Your task to perform on an android device: Go to battery settings Image 0: 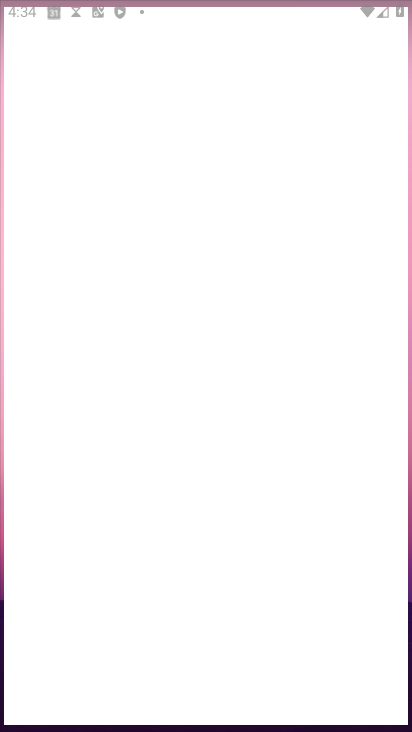
Step 0: click (122, 244)
Your task to perform on an android device: Go to battery settings Image 1: 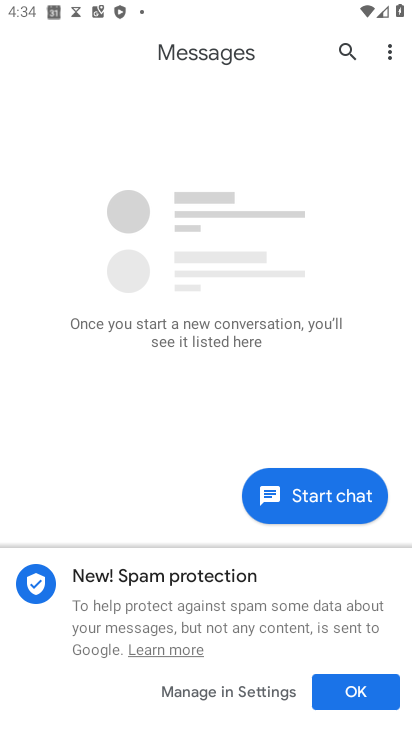
Step 1: click (352, 693)
Your task to perform on an android device: Go to battery settings Image 2: 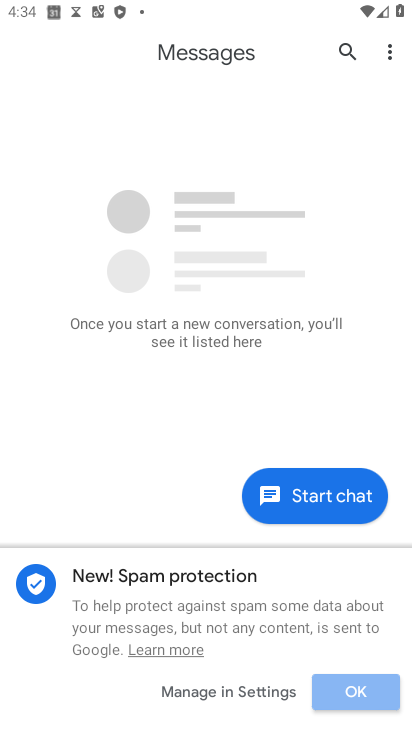
Step 2: click (353, 692)
Your task to perform on an android device: Go to battery settings Image 3: 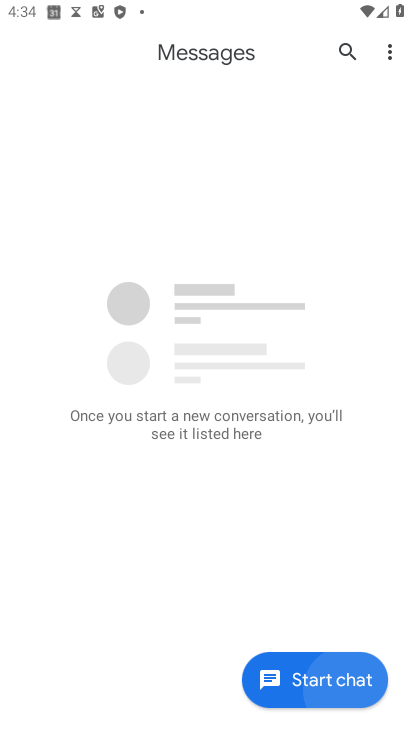
Step 3: click (353, 692)
Your task to perform on an android device: Go to battery settings Image 4: 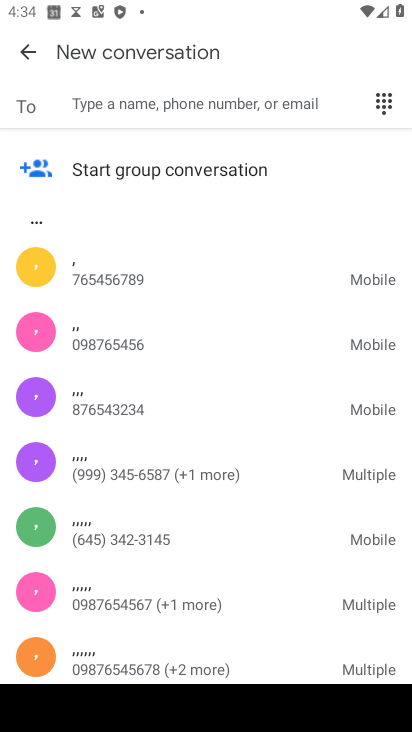
Step 4: click (10, 43)
Your task to perform on an android device: Go to battery settings Image 5: 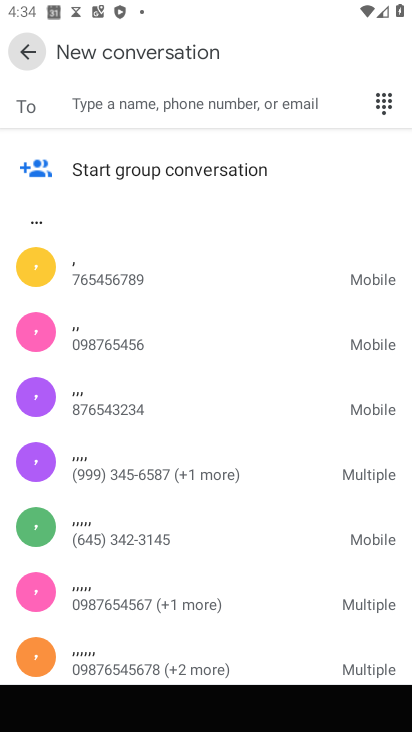
Step 5: click (27, 57)
Your task to perform on an android device: Go to battery settings Image 6: 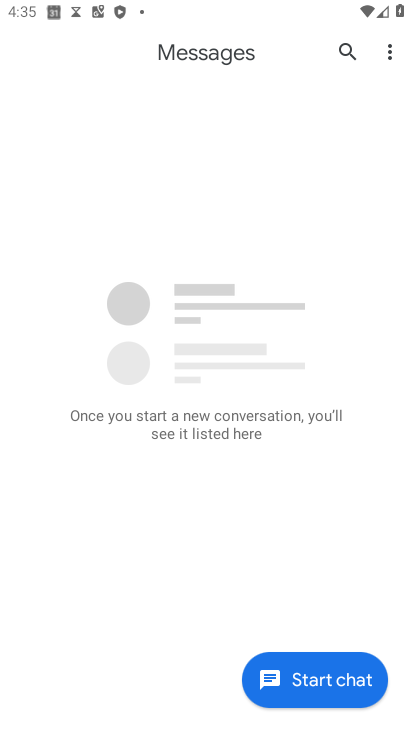
Step 6: press back button
Your task to perform on an android device: Go to battery settings Image 7: 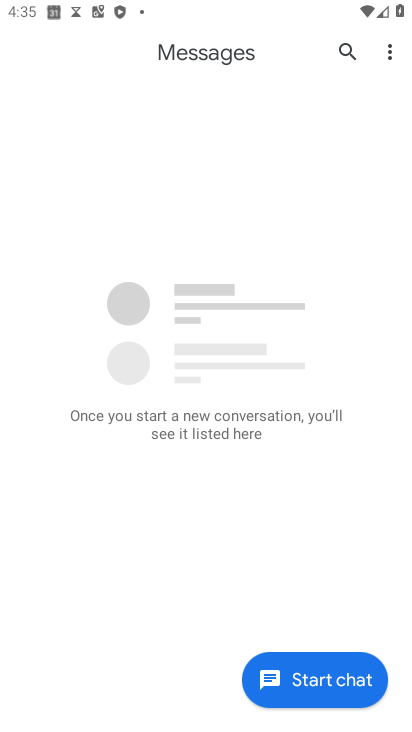
Step 7: press back button
Your task to perform on an android device: Go to battery settings Image 8: 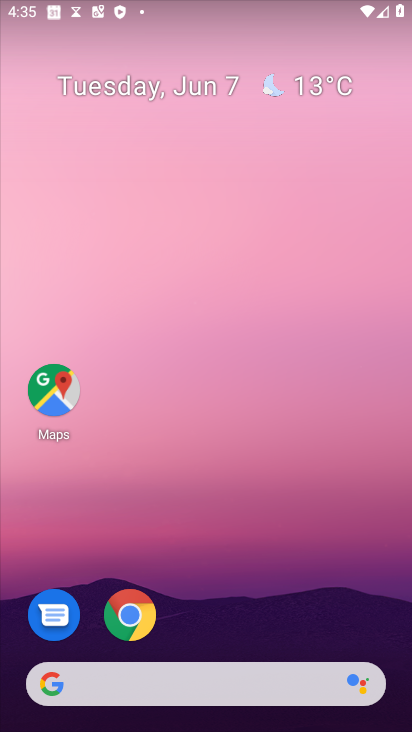
Step 8: press home button
Your task to perform on an android device: Go to battery settings Image 9: 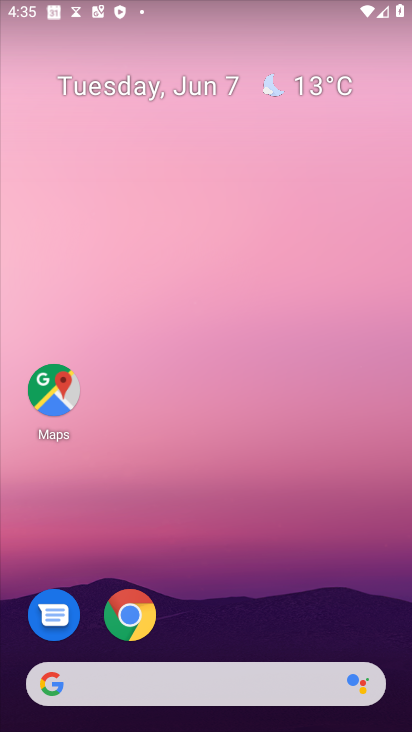
Step 9: drag from (240, 690) to (169, 256)
Your task to perform on an android device: Go to battery settings Image 10: 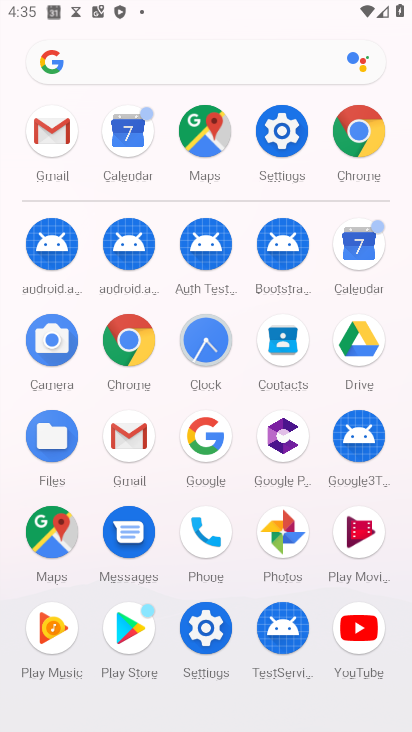
Step 10: drag from (297, 668) to (205, 308)
Your task to perform on an android device: Go to battery settings Image 11: 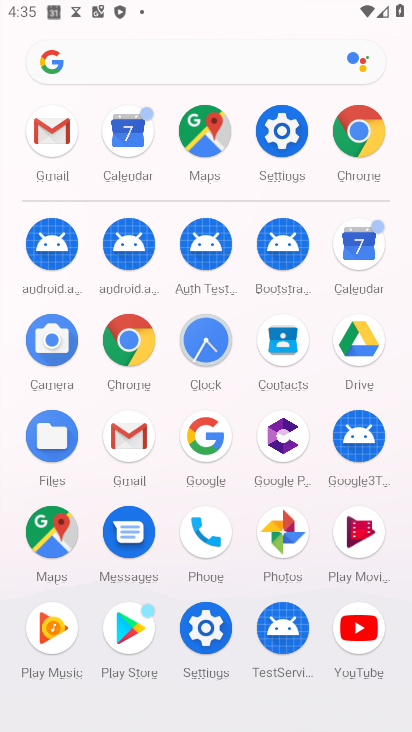
Step 11: click (205, 621)
Your task to perform on an android device: Go to battery settings Image 12: 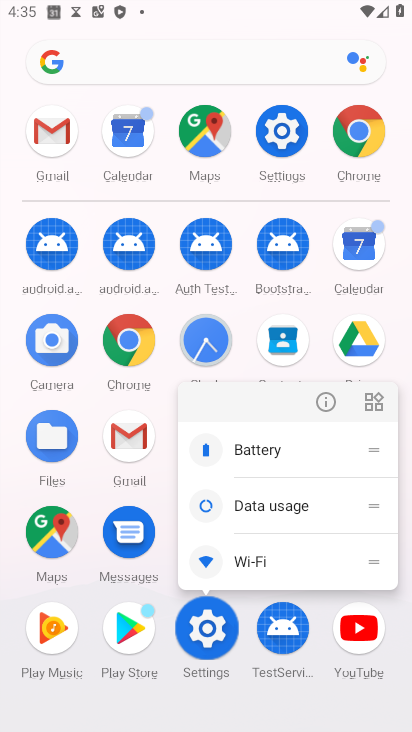
Step 12: click (205, 619)
Your task to perform on an android device: Go to battery settings Image 13: 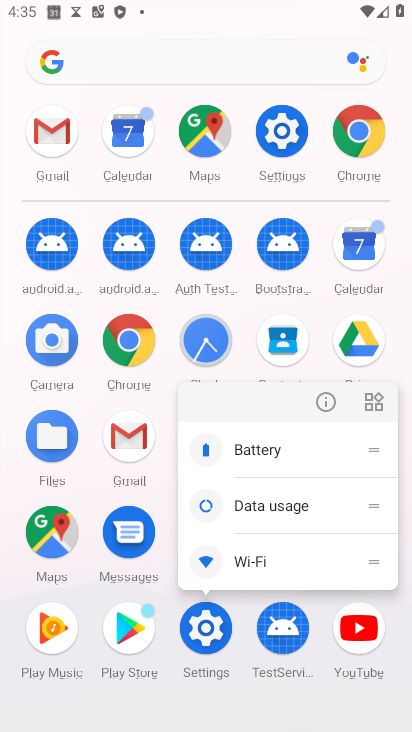
Step 13: click (166, 390)
Your task to perform on an android device: Go to battery settings Image 14: 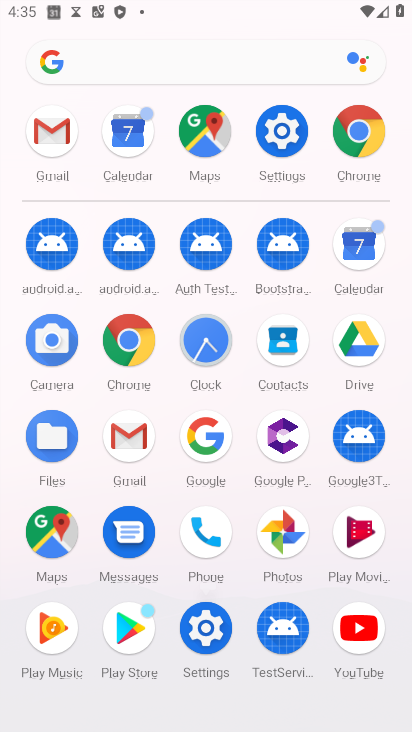
Step 14: click (164, 390)
Your task to perform on an android device: Go to battery settings Image 15: 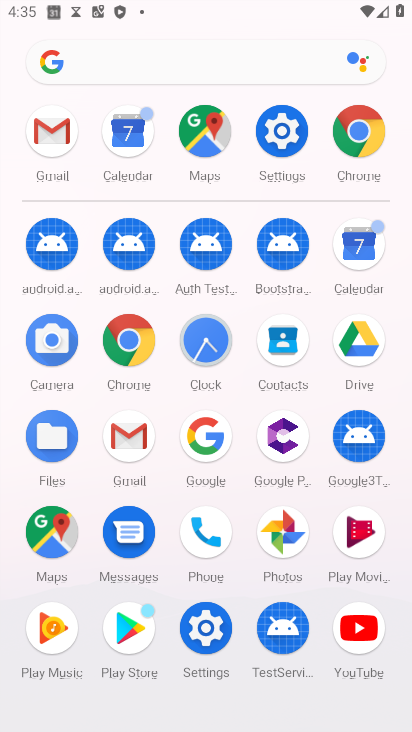
Step 15: click (163, 389)
Your task to perform on an android device: Go to battery settings Image 16: 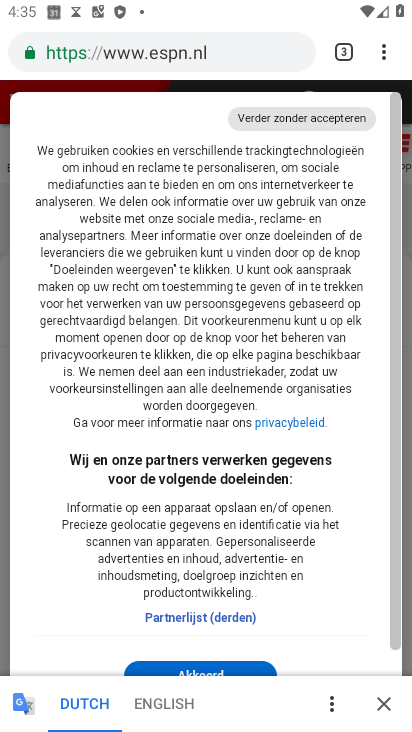
Step 16: press back button
Your task to perform on an android device: Go to battery settings Image 17: 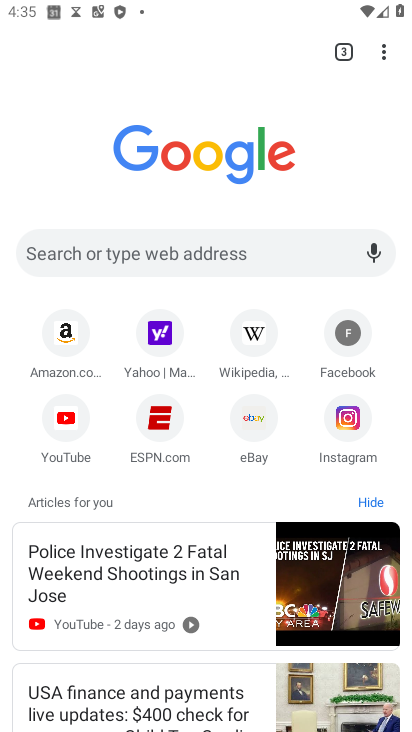
Step 17: press home button
Your task to perform on an android device: Go to battery settings Image 18: 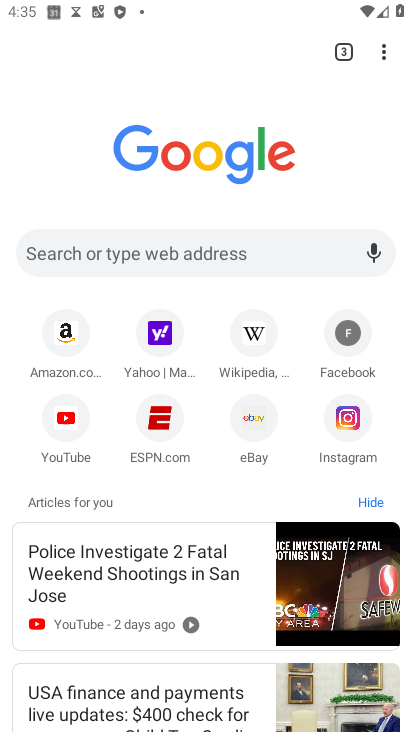
Step 18: press home button
Your task to perform on an android device: Go to battery settings Image 19: 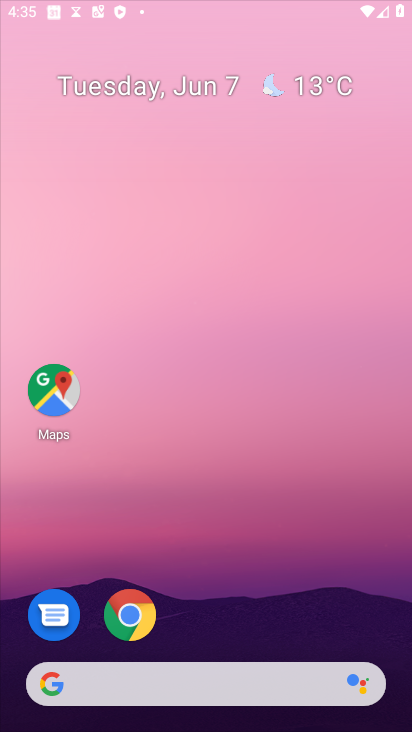
Step 19: press home button
Your task to perform on an android device: Go to battery settings Image 20: 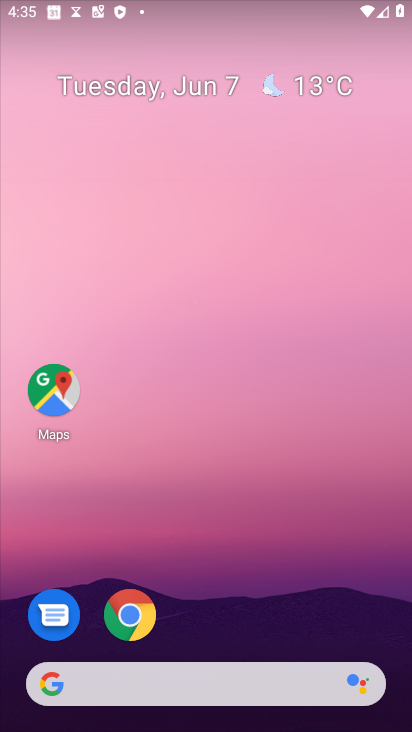
Step 20: drag from (272, 675) to (178, 155)
Your task to perform on an android device: Go to battery settings Image 21: 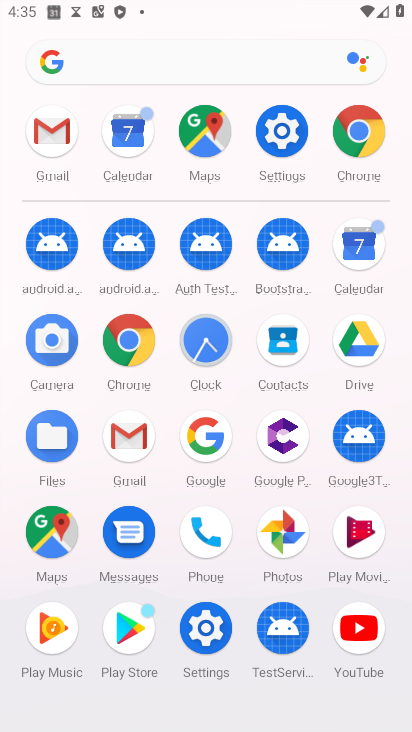
Step 21: click (212, 622)
Your task to perform on an android device: Go to battery settings Image 22: 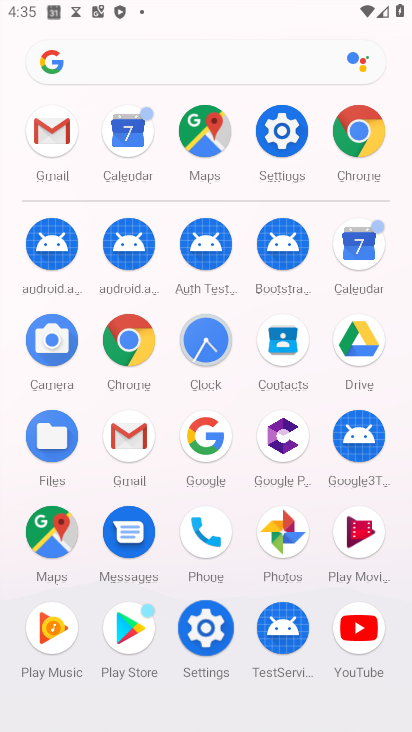
Step 22: click (212, 629)
Your task to perform on an android device: Go to battery settings Image 23: 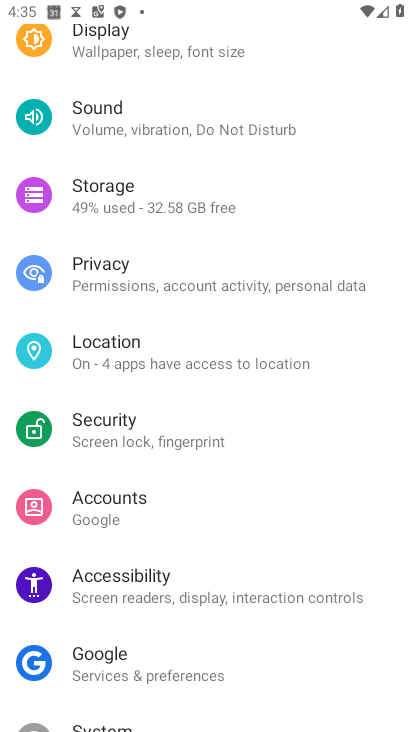
Step 23: click (208, 632)
Your task to perform on an android device: Go to battery settings Image 24: 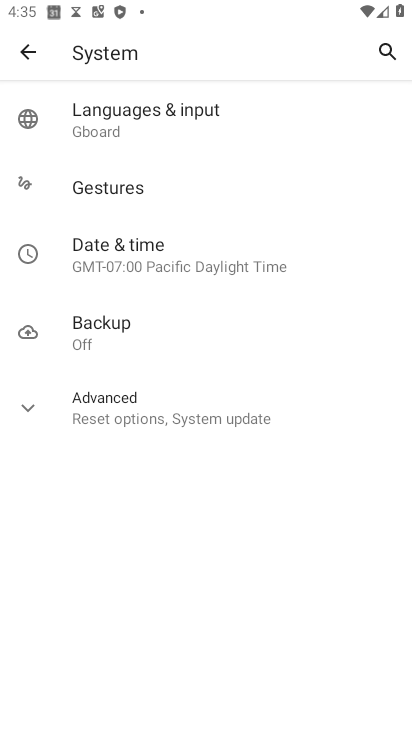
Step 24: click (27, 49)
Your task to perform on an android device: Go to battery settings Image 25: 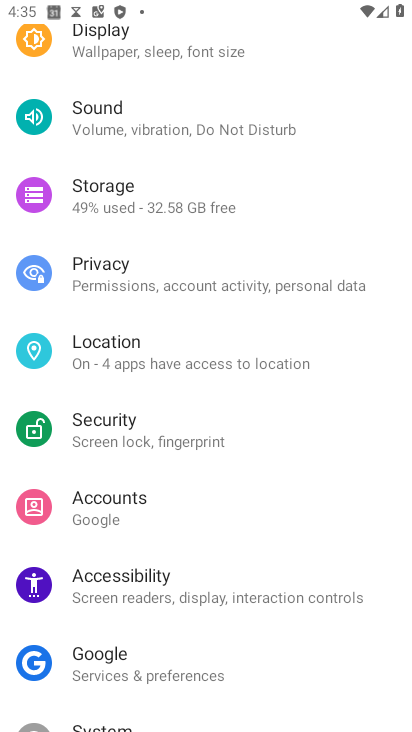
Step 25: drag from (123, 589) to (72, 81)
Your task to perform on an android device: Go to battery settings Image 26: 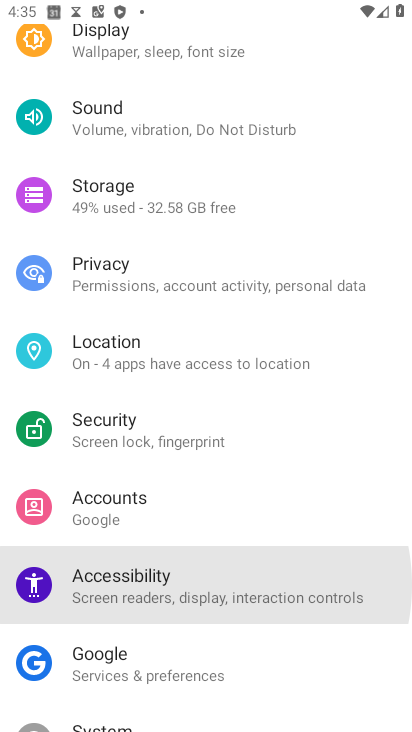
Step 26: drag from (184, 510) to (127, 134)
Your task to perform on an android device: Go to battery settings Image 27: 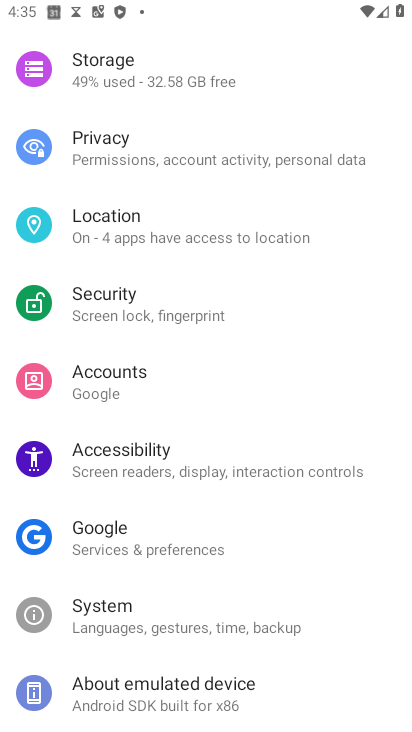
Step 27: drag from (78, 196) to (136, 541)
Your task to perform on an android device: Go to battery settings Image 28: 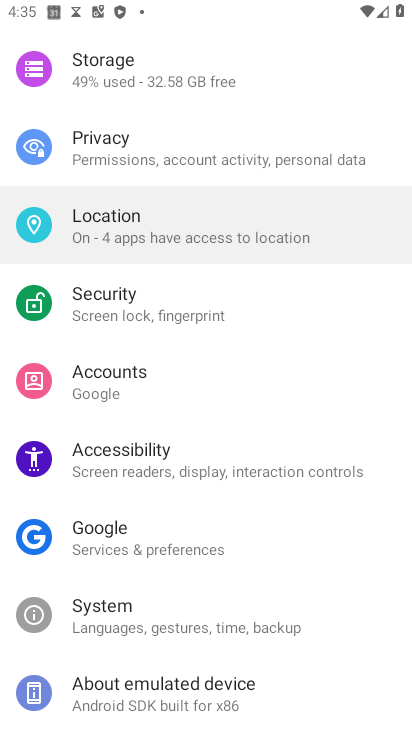
Step 28: drag from (121, 103) to (172, 455)
Your task to perform on an android device: Go to battery settings Image 29: 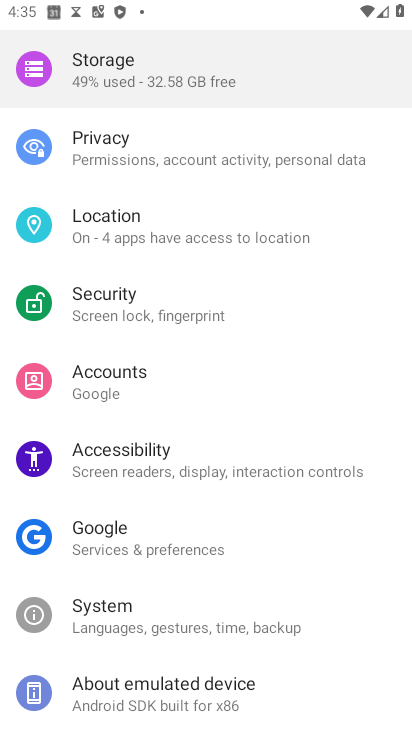
Step 29: drag from (132, 181) to (188, 555)
Your task to perform on an android device: Go to battery settings Image 30: 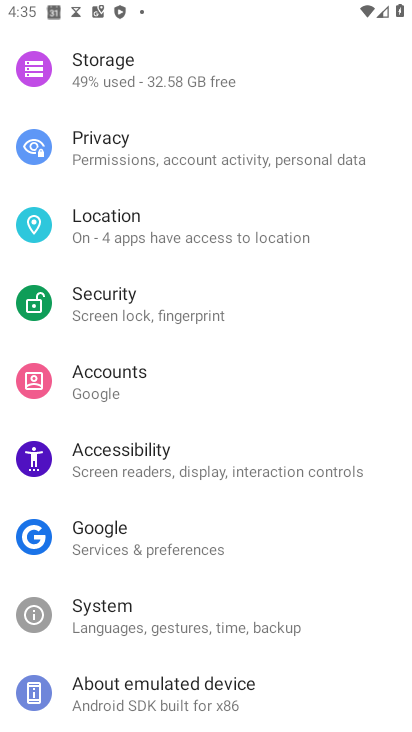
Step 30: drag from (94, 133) to (109, 595)
Your task to perform on an android device: Go to battery settings Image 31: 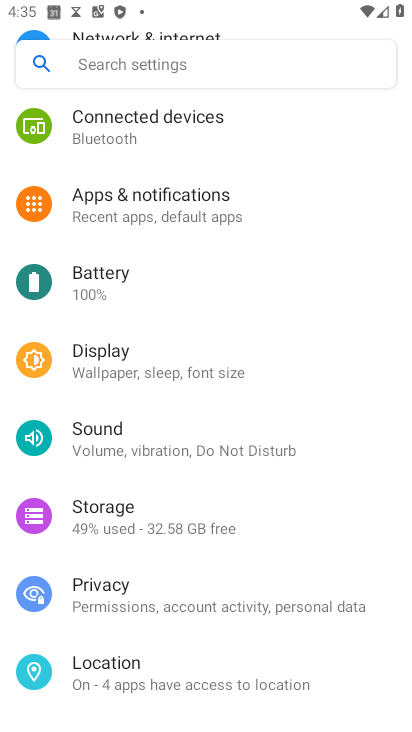
Step 31: drag from (107, 268) to (149, 579)
Your task to perform on an android device: Go to battery settings Image 32: 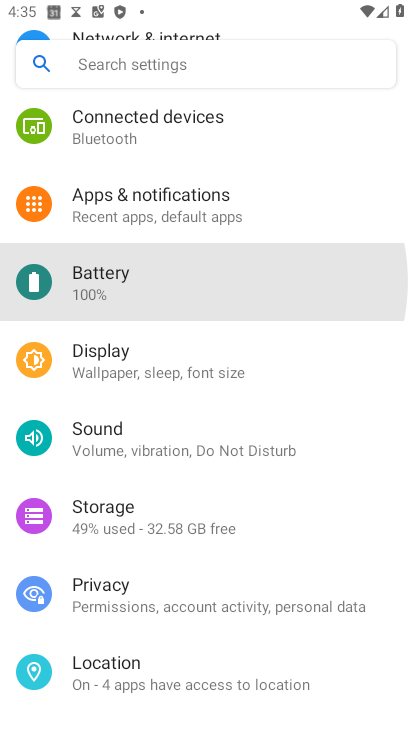
Step 32: drag from (133, 232) to (143, 574)
Your task to perform on an android device: Go to battery settings Image 33: 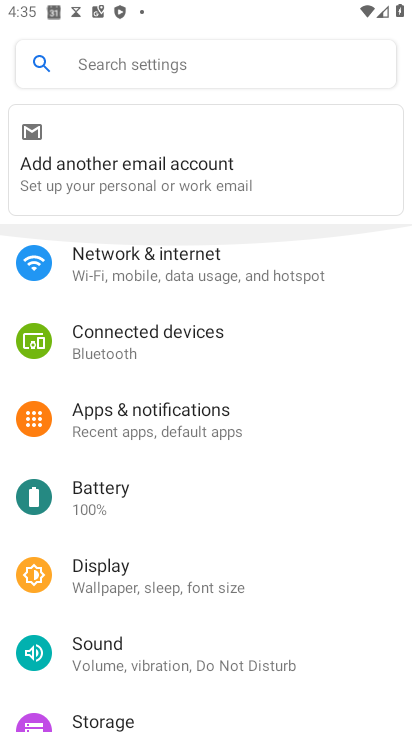
Step 33: drag from (130, 209) to (136, 531)
Your task to perform on an android device: Go to battery settings Image 34: 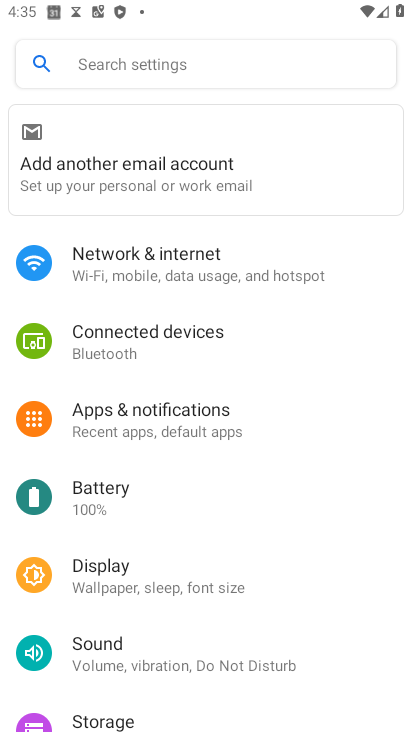
Step 34: click (97, 499)
Your task to perform on an android device: Go to battery settings Image 35: 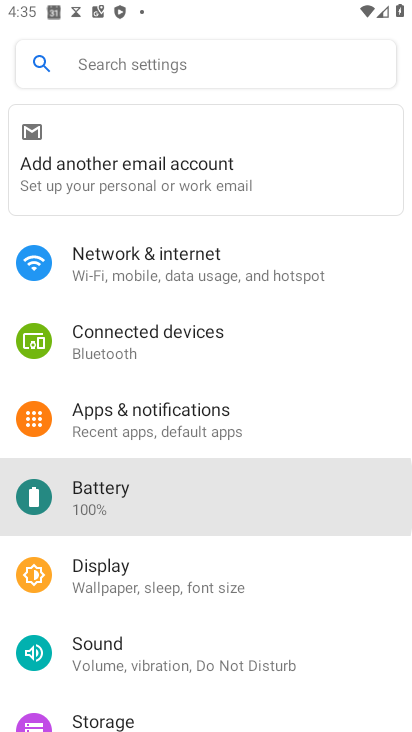
Step 35: click (96, 492)
Your task to perform on an android device: Go to battery settings Image 36: 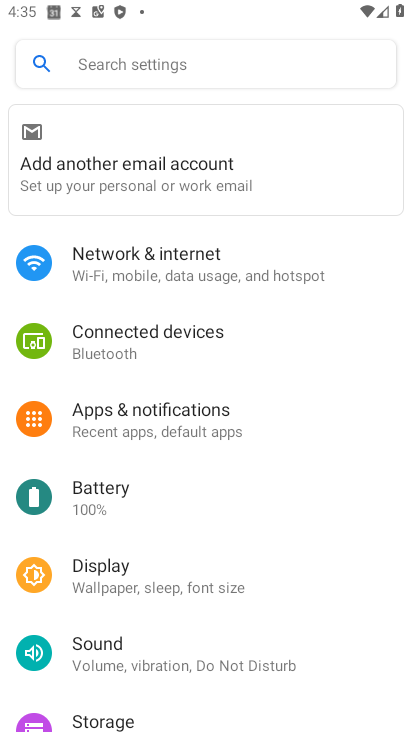
Step 36: click (98, 492)
Your task to perform on an android device: Go to battery settings Image 37: 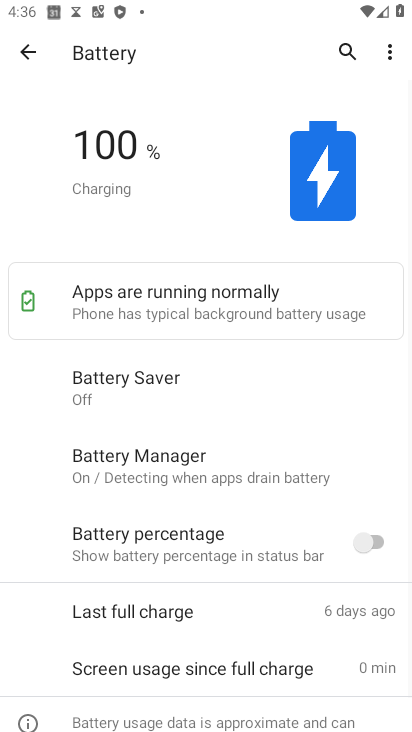
Step 37: task complete